Your task to perform on an android device: turn notification dots on Image 0: 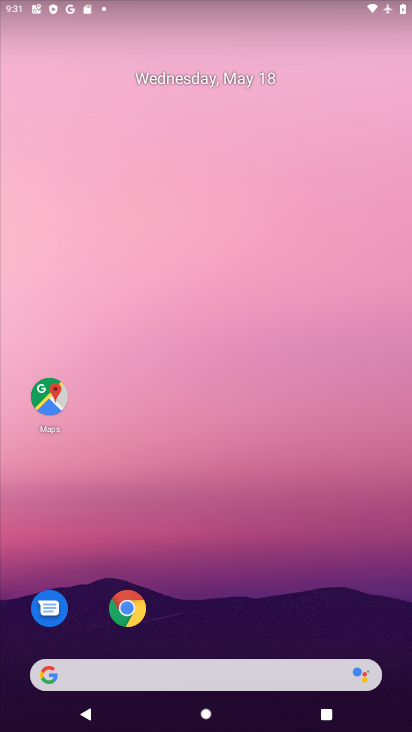
Step 0: drag from (232, 599) to (157, 8)
Your task to perform on an android device: turn notification dots on Image 1: 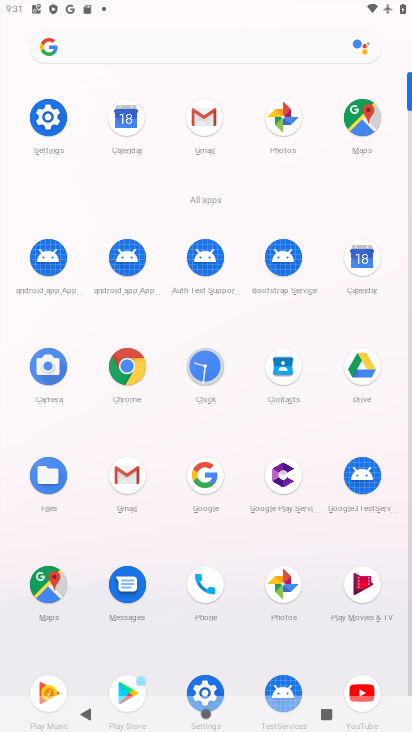
Step 1: click (41, 194)
Your task to perform on an android device: turn notification dots on Image 2: 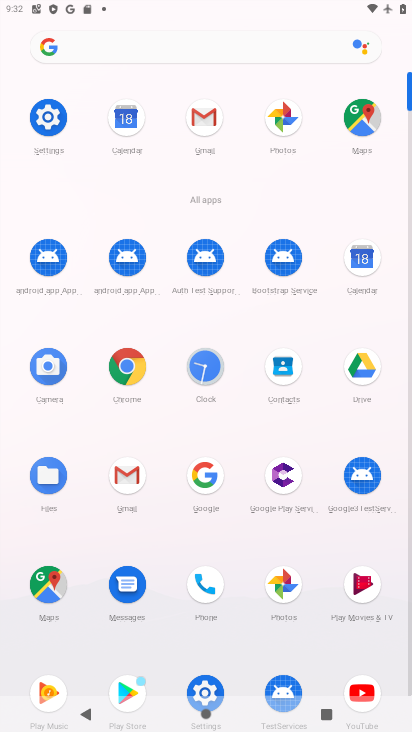
Step 2: click (47, 132)
Your task to perform on an android device: turn notification dots on Image 3: 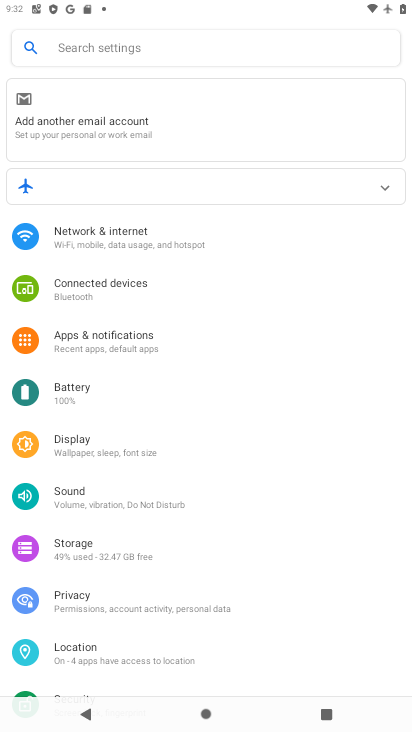
Step 3: click (201, 360)
Your task to perform on an android device: turn notification dots on Image 4: 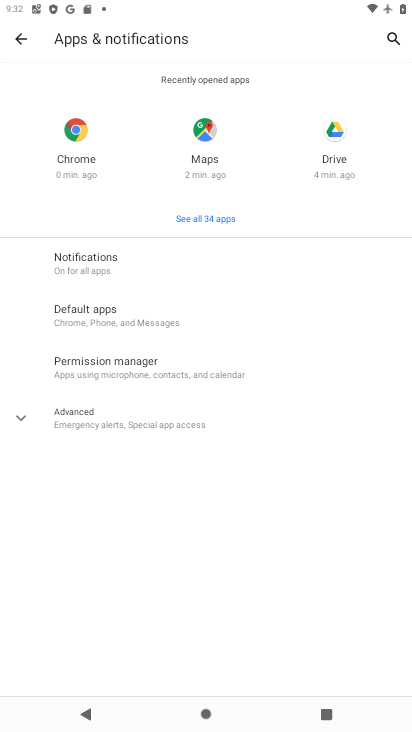
Step 4: click (213, 423)
Your task to perform on an android device: turn notification dots on Image 5: 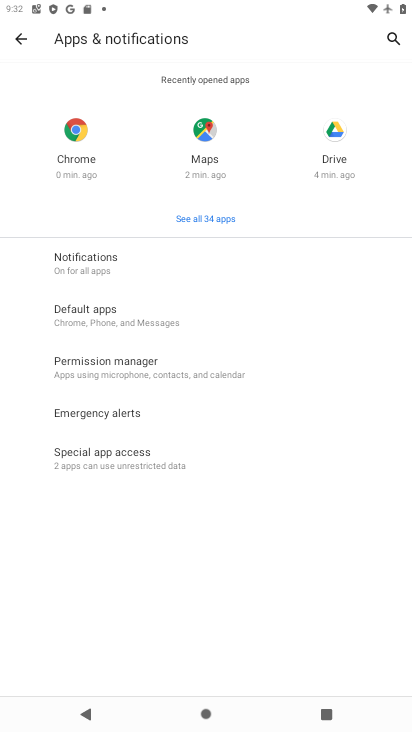
Step 5: click (180, 309)
Your task to perform on an android device: turn notification dots on Image 6: 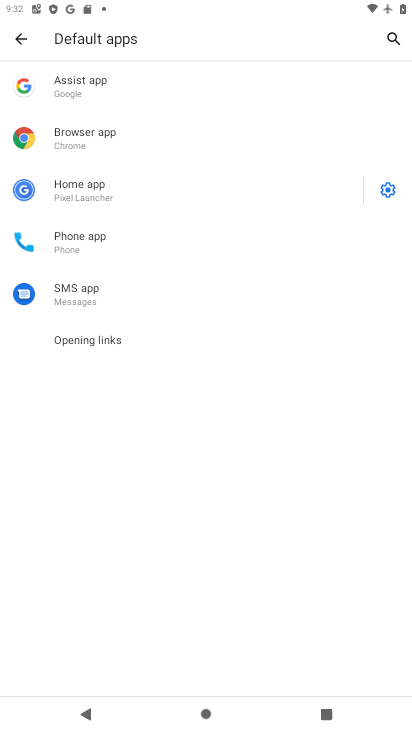
Step 6: click (35, 42)
Your task to perform on an android device: turn notification dots on Image 7: 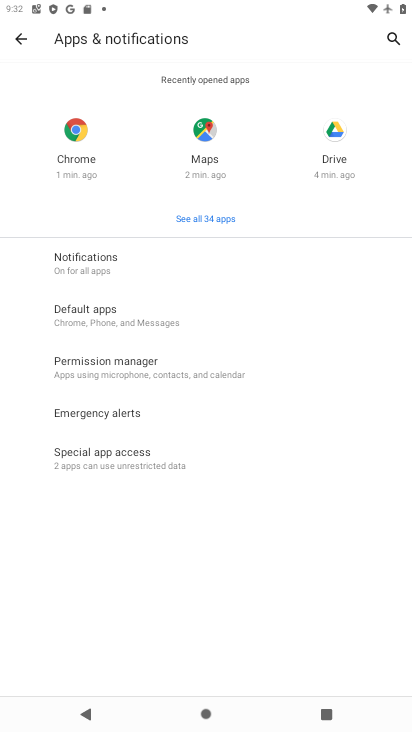
Step 7: click (125, 260)
Your task to perform on an android device: turn notification dots on Image 8: 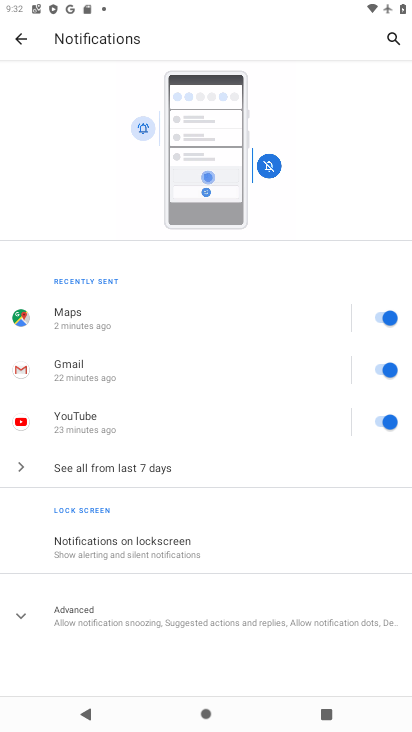
Step 8: drag from (131, 532) to (139, 238)
Your task to perform on an android device: turn notification dots on Image 9: 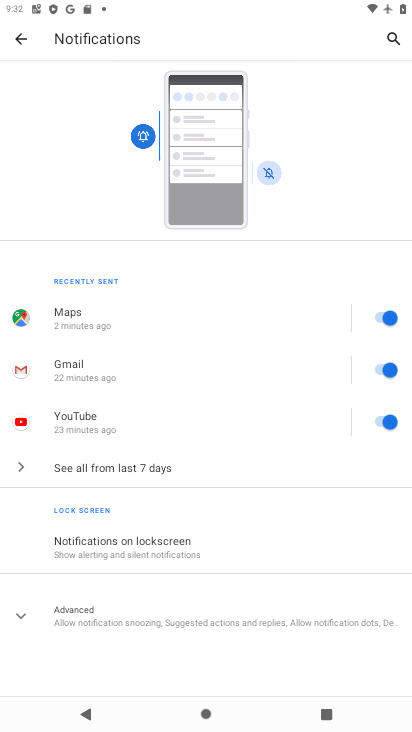
Step 9: click (146, 600)
Your task to perform on an android device: turn notification dots on Image 10: 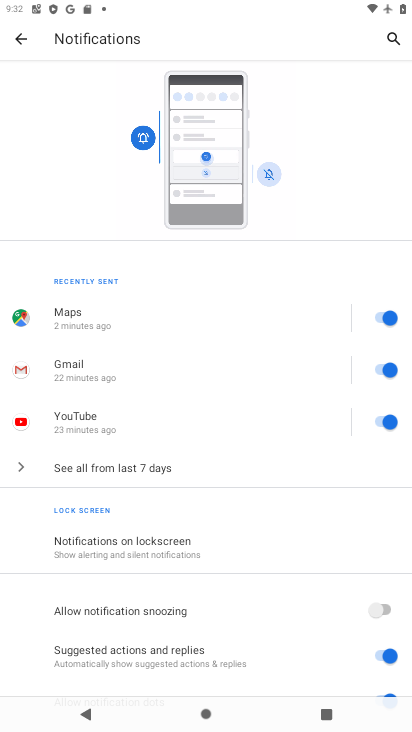
Step 10: task complete